Your task to perform on an android device: find which apps use the phone's location Image 0: 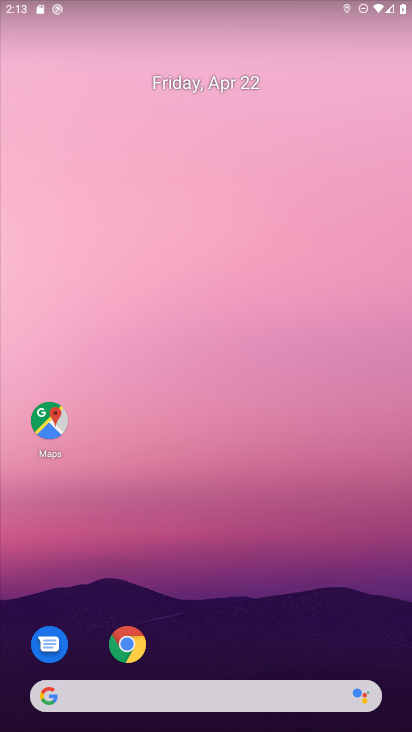
Step 0: drag from (263, 635) to (215, 159)
Your task to perform on an android device: find which apps use the phone's location Image 1: 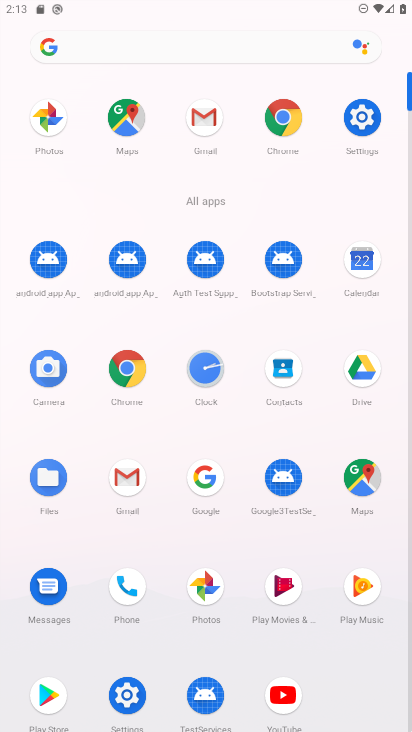
Step 1: click (359, 123)
Your task to perform on an android device: find which apps use the phone's location Image 2: 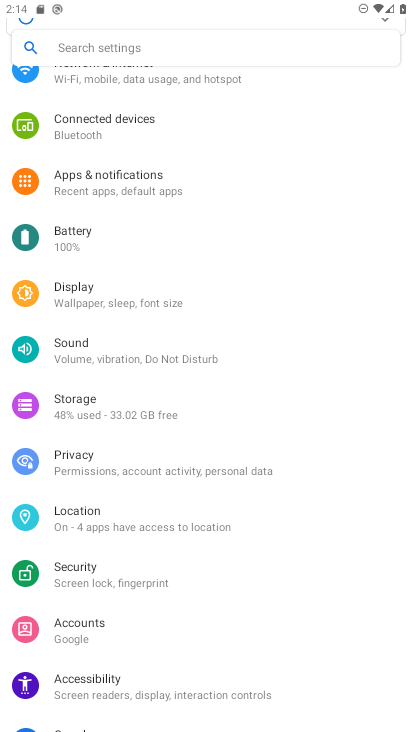
Step 2: click (111, 524)
Your task to perform on an android device: find which apps use the phone's location Image 3: 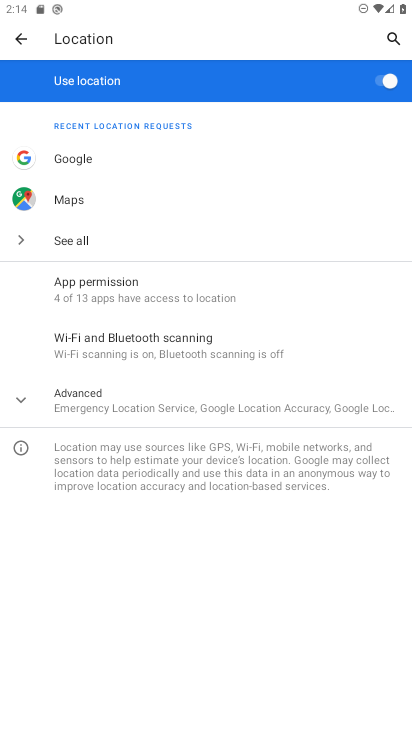
Step 3: click (84, 280)
Your task to perform on an android device: find which apps use the phone's location Image 4: 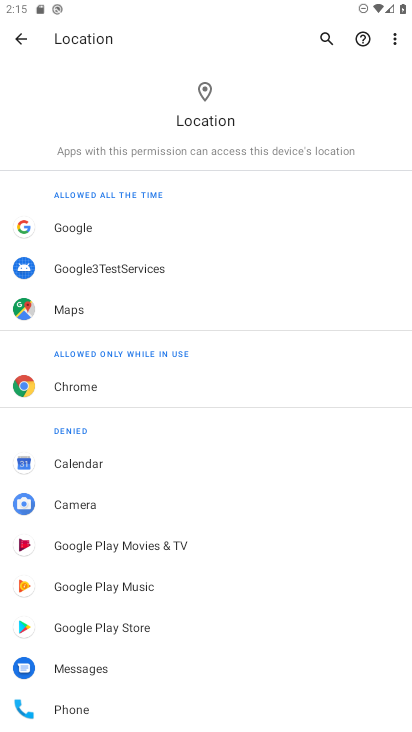
Step 4: task complete